Your task to perform on an android device: What's the weather going to be tomorrow? Image 0: 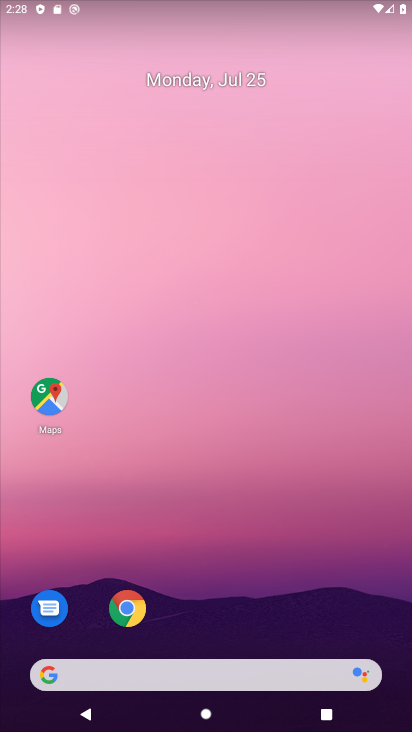
Step 0: drag from (254, 600) to (254, 26)
Your task to perform on an android device: What's the weather going to be tomorrow? Image 1: 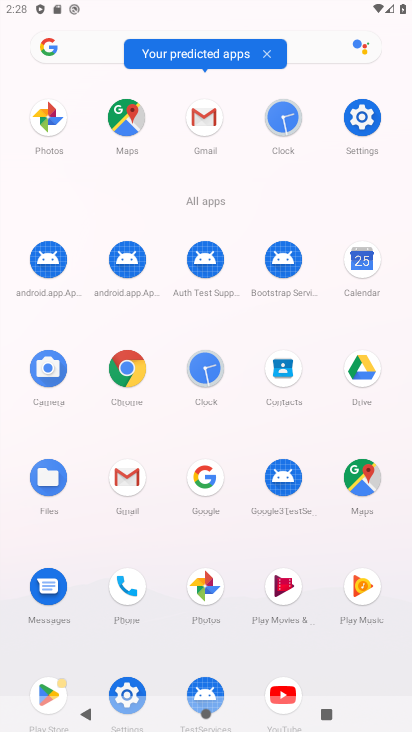
Step 1: click (133, 381)
Your task to perform on an android device: What's the weather going to be tomorrow? Image 2: 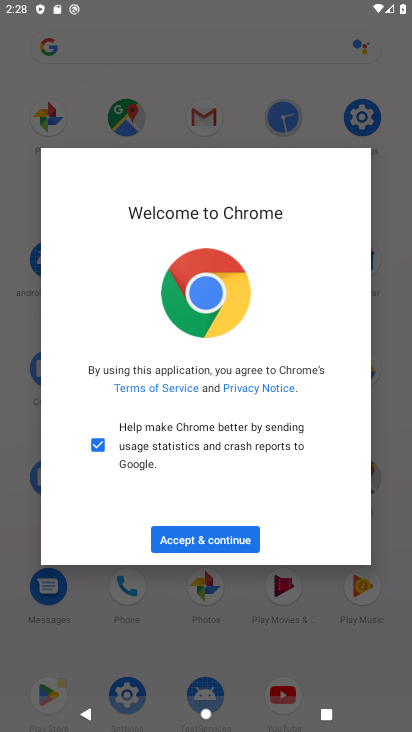
Step 2: click (198, 546)
Your task to perform on an android device: What's the weather going to be tomorrow? Image 3: 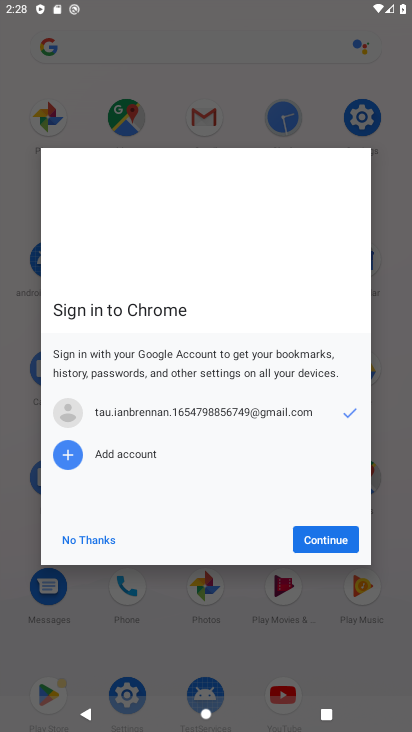
Step 3: click (343, 539)
Your task to perform on an android device: What's the weather going to be tomorrow? Image 4: 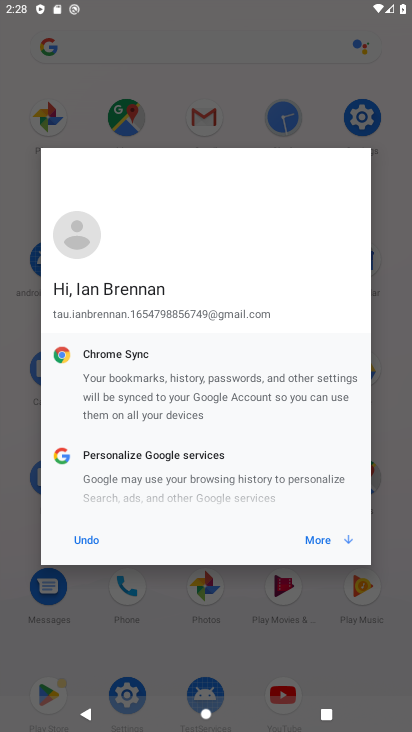
Step 4: click (328, 535)
Your task to perform on an android device: What's the weather going to be tomorrow? Image 5: 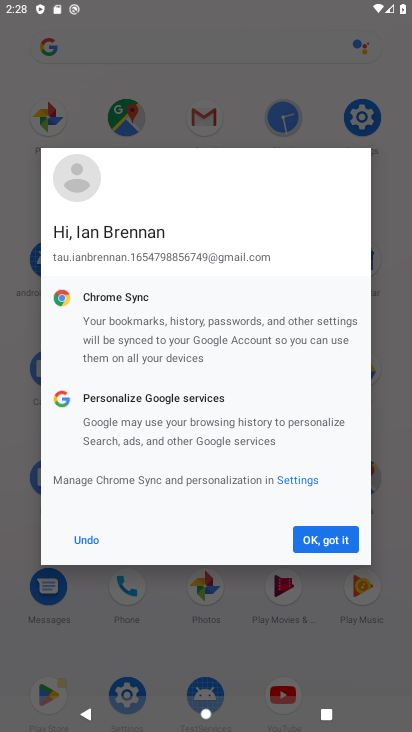
Step 5: click (334, 529)
Your task to perform on an android device: What's the weather going to be tomorrow? Image 6: 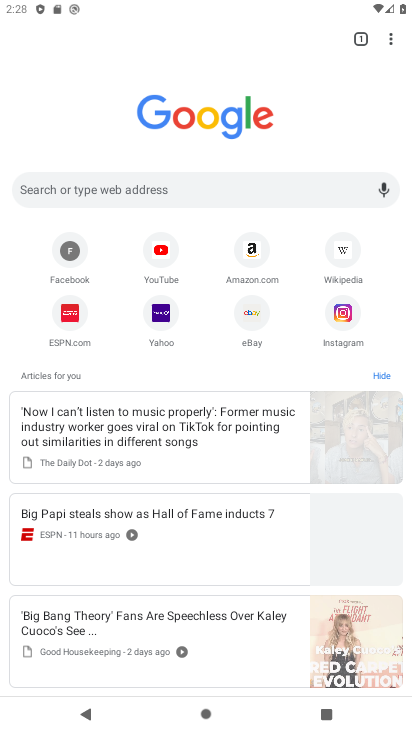
Step 6: click (274, 184)
Your task to perform on an android device: What's the weather going to be tomorrow? Image 7: 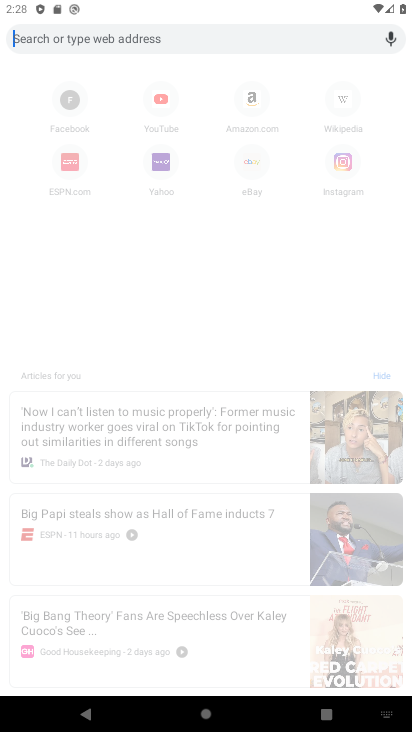
Step 7: type "What's the weather going to be tomorrow?"
Your task to perform on an android device: What's the weather going to be tomorrow? Image 8: 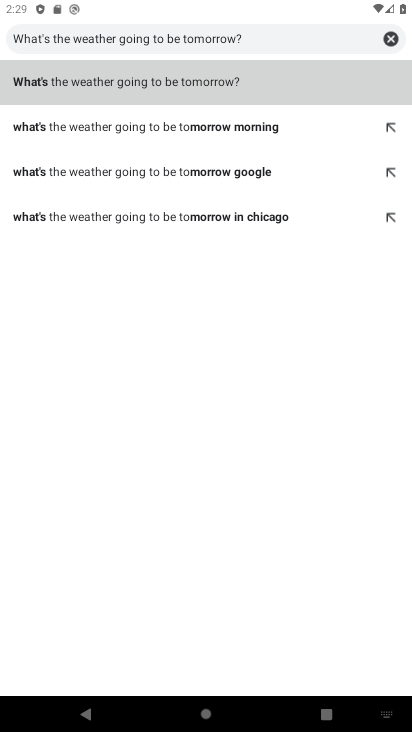
Step 8: click (333, 83)
Your task to perform on an android device: What's the weather going to be tomorrow? Image 9: 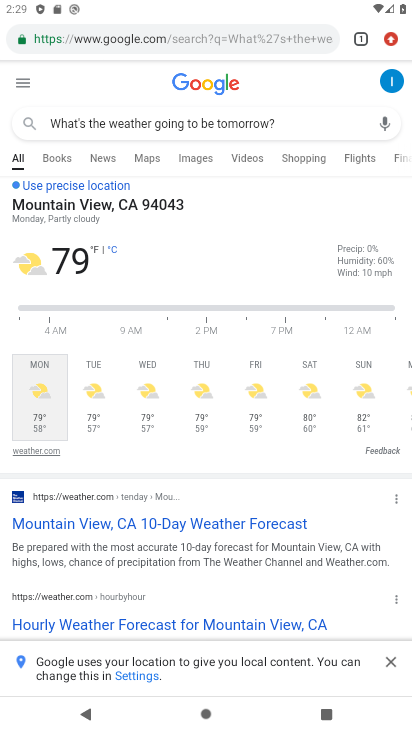
Step 9: task complete